Your task to perform on an android device: change the clock display to analog Image 0: 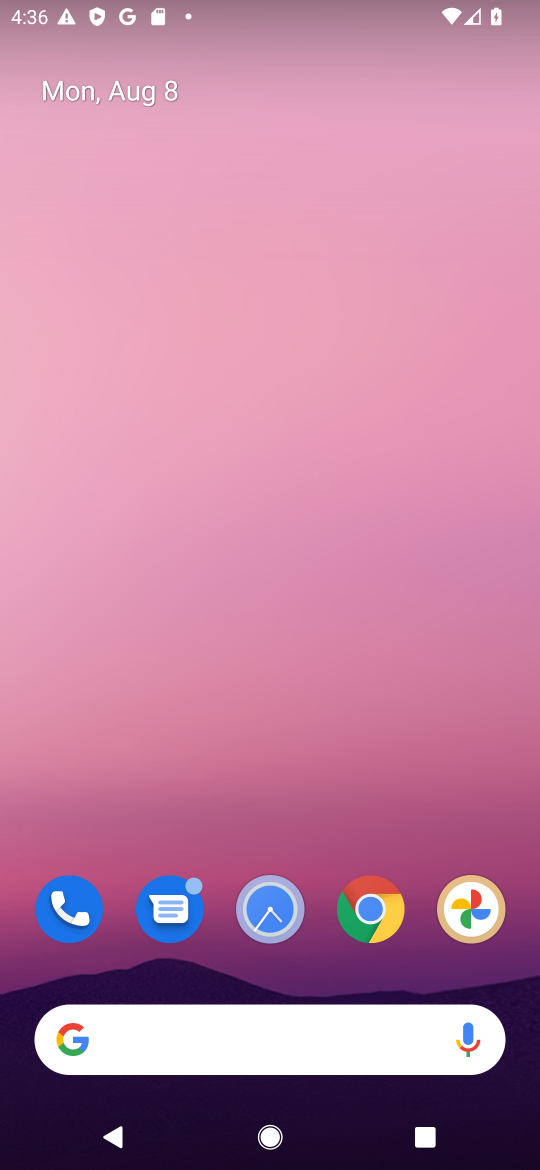
Step 0: press home button
Your task to perform on an android device: change the clock display to analog Image 1: 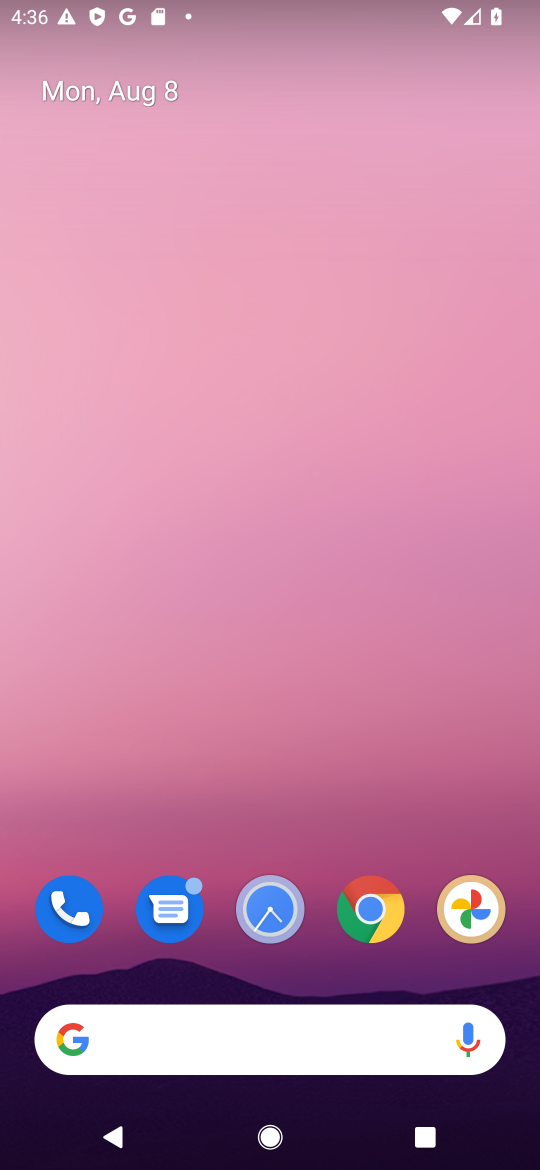
Step 1: press home button
Your task to perform on an android device: change the clock display to analog Image 2: 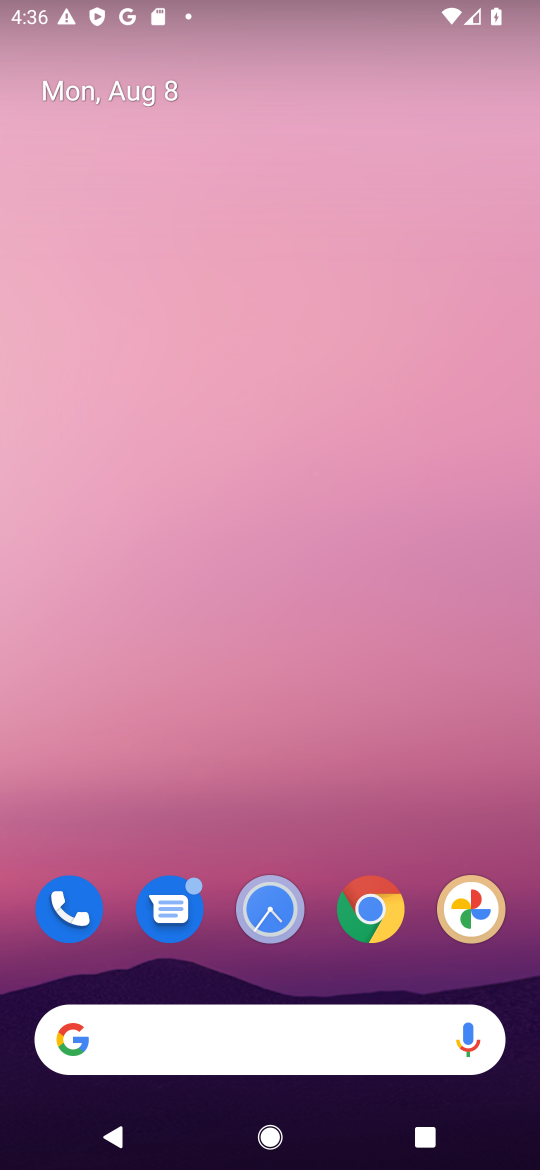
Step 2: drag from (308, 1044) to (509, 136)
Your task to perform on an android device: change the clock display to analog Image 3: 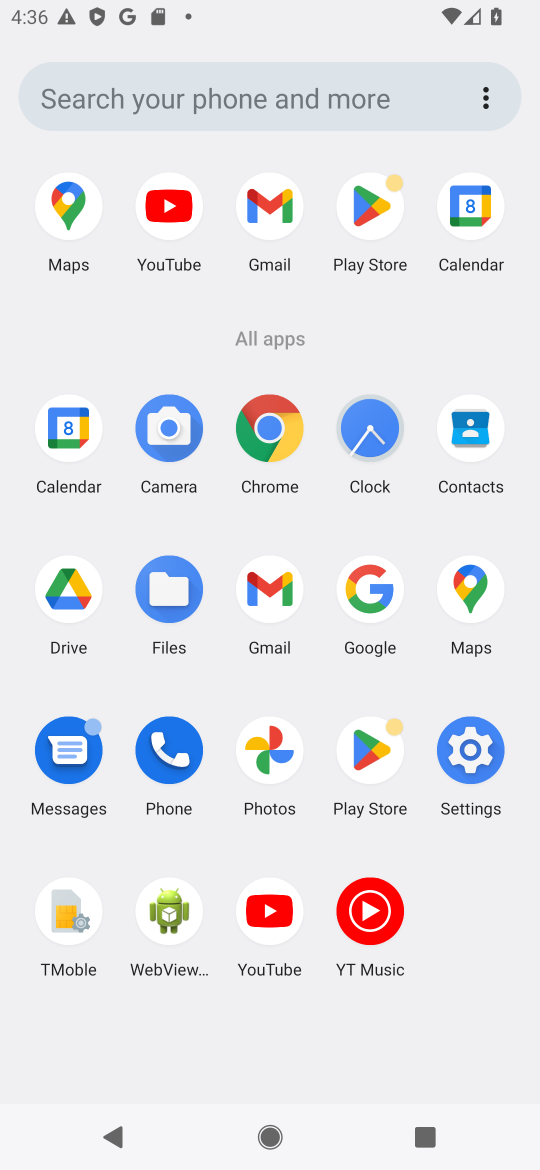
Step 3: click (370, 425)
Your task to perform on an android device: change the clock display to analog Image 4: 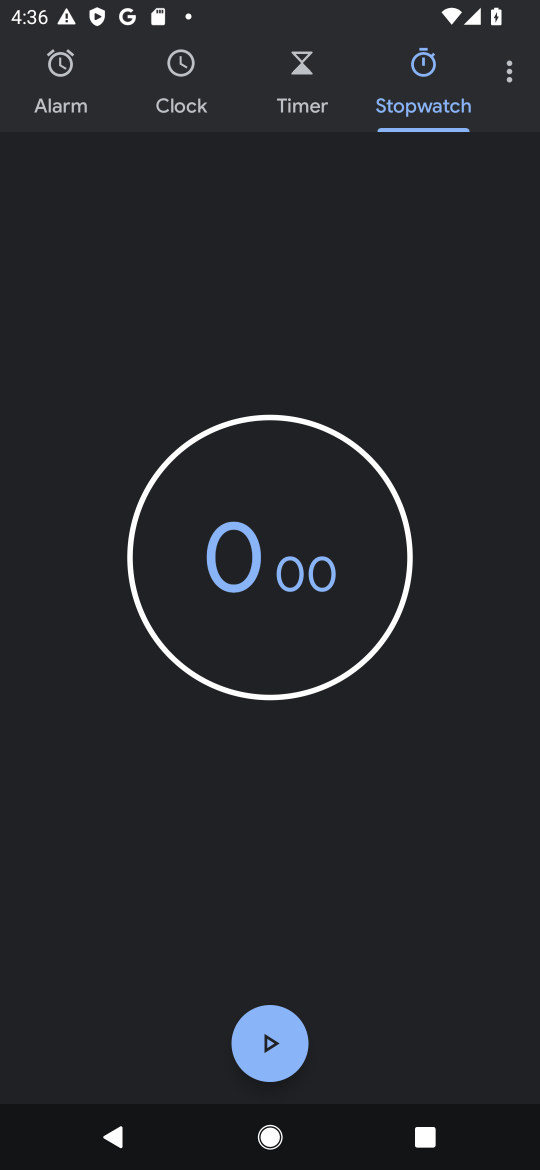
Step 4: click (502, 73)
Your task to perform on an android device: change the clock display to analog Image 5: 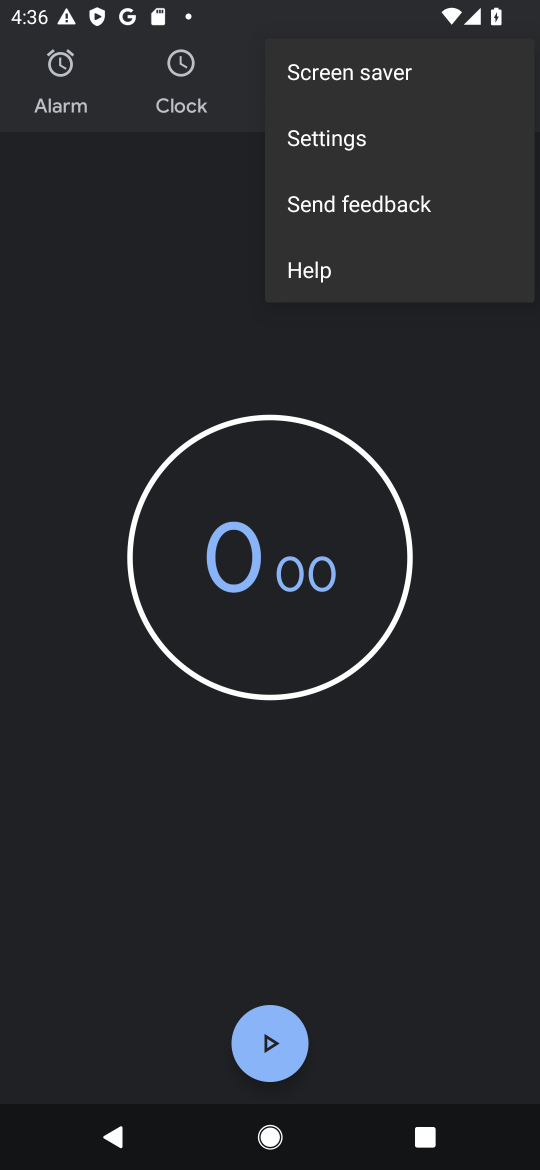
Step 5: click (332, 142)
Your task to perform on an android device: change the clock display to analog Image 6: 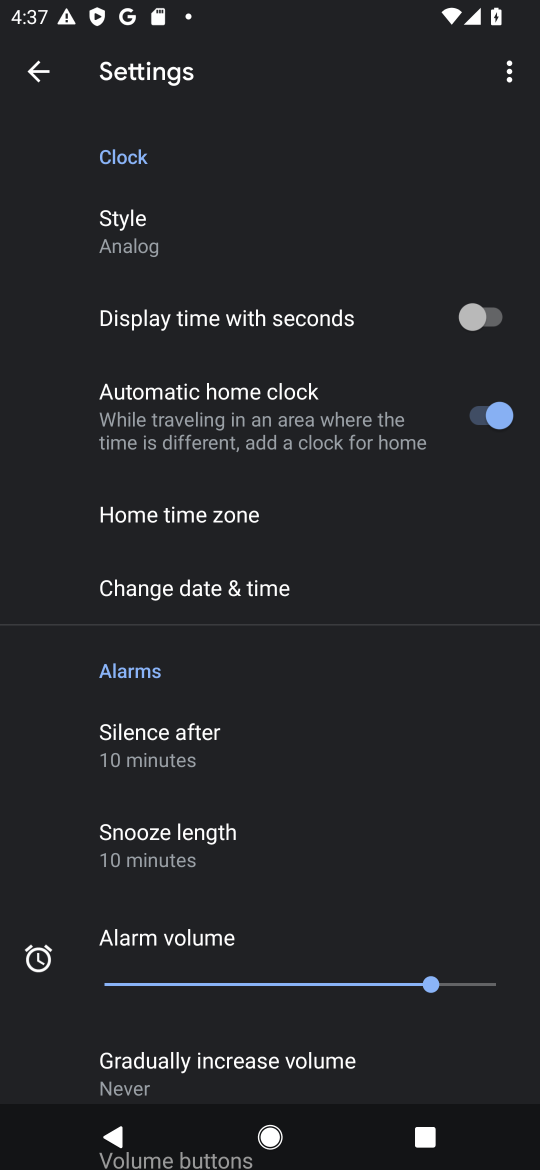
Step 6: click (173, 253)
Your task to perform on an android device: change the clock display to analog Image 7: 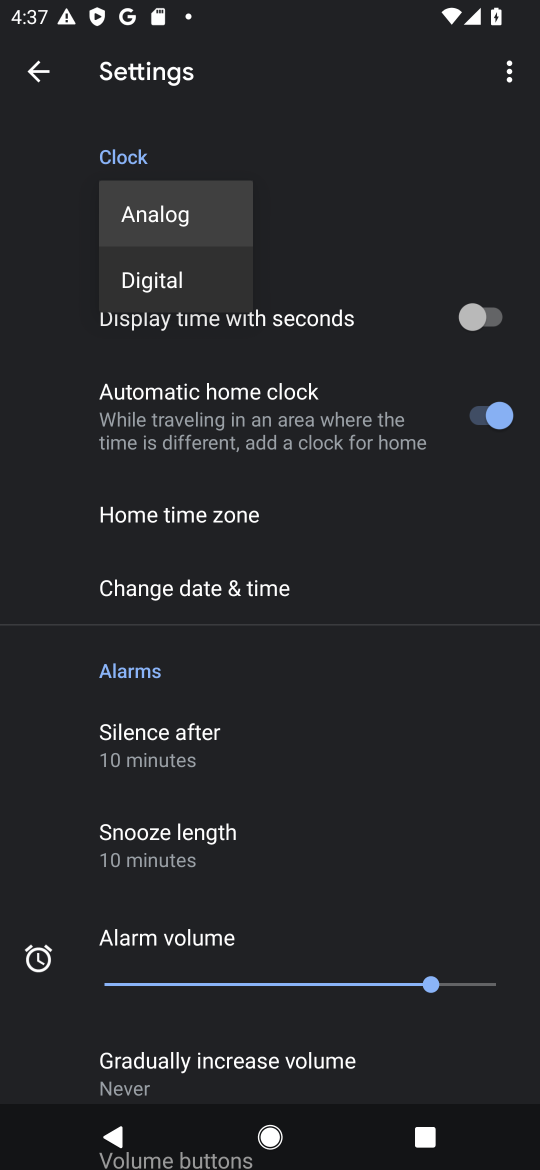
Step 7: task complete